Your task to perform on an android device: turn on the 24-hour format for clock Image 0: 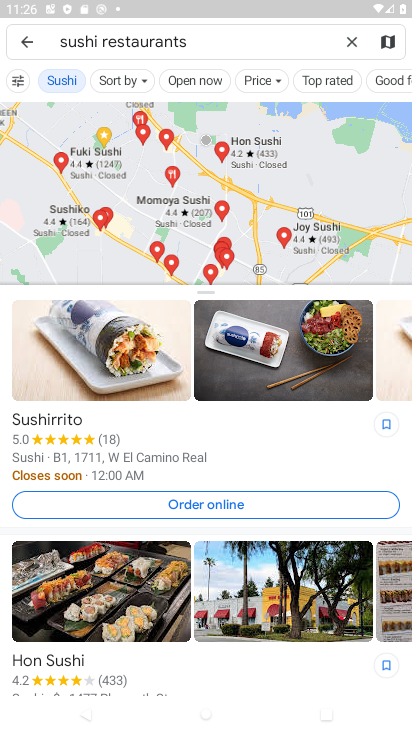
Step 0: press home button
Your task to perform on an android device: turn on the 24-hour format for clock Image 1: 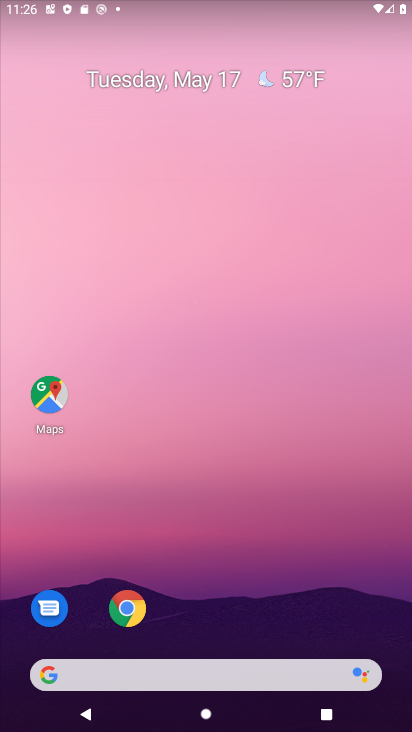
Step 1: drag from (187, 611) to (270, 96)
Your task to perform on an android device: turn on the 24-hour format for clock Image 2: 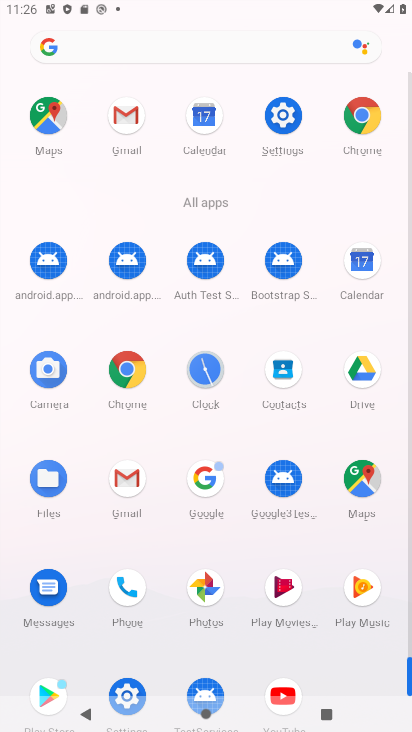
Step 2: click (293, 142)
Your task to perform on an android device: turn on the 24-hour format for clock Image 3: 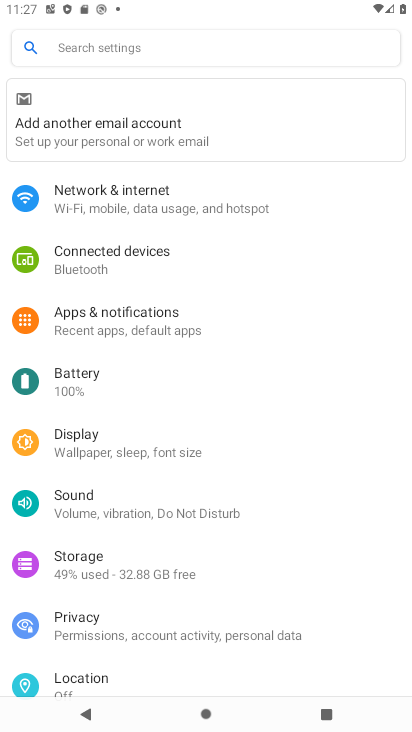
Step 3: drag from (109, 574) to (197, 179)
Your task to perform on an android device: turn on the 24-hour format for clock Image 4: 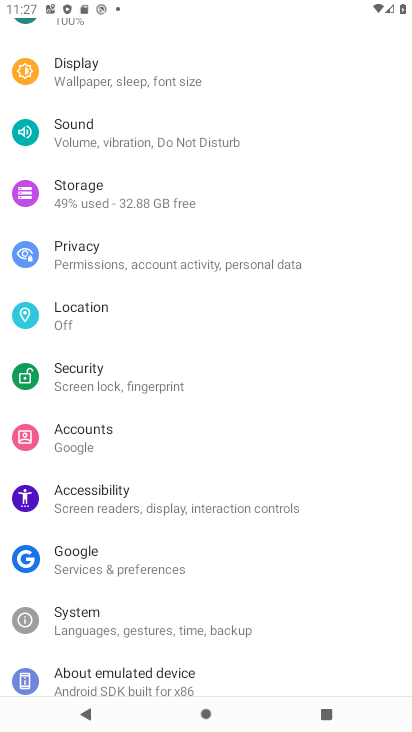
Step 4: drag from (110, 501) to (150, 243)
Your task to perform on an android device: turn on the 24-hour format for clock Image 5: 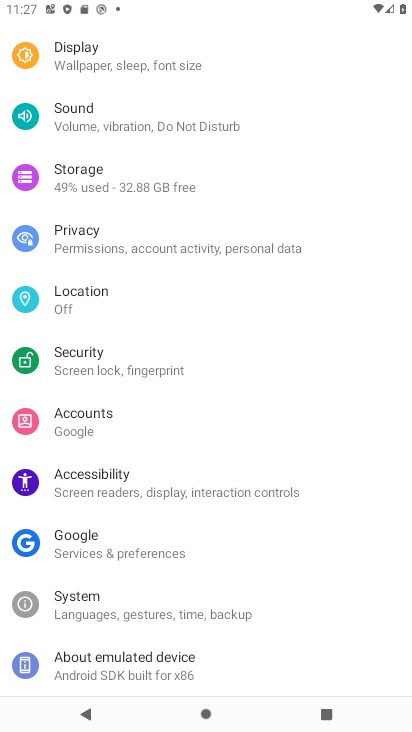
Step 5: click (79, 610)
Your task to perform on an android device: turn on the 24-hour format for clock Image 6: 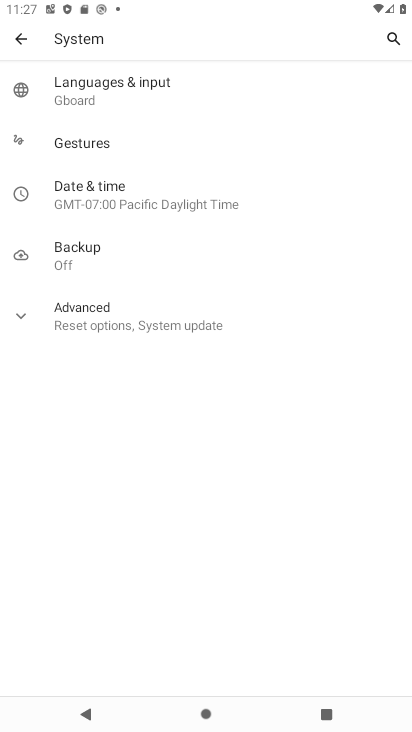
Step 6: click (104, 187)
Your task to perform on an android device: turn on the 24-hour format for clock Image 7: 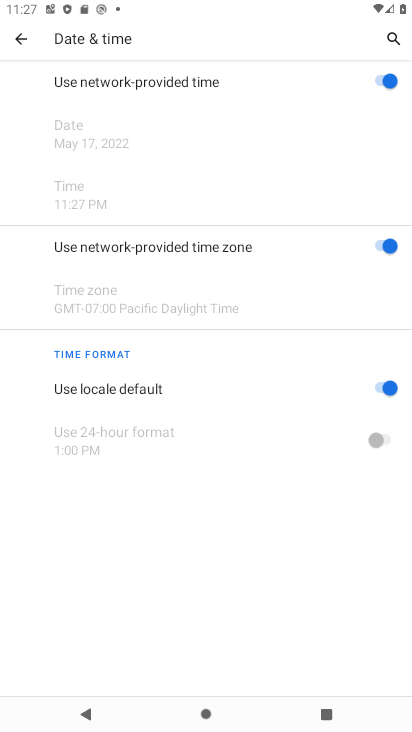
Step 7: click (374, 375)
Your task to perform on an android device: turn on the 24-hour format for clock Image 8: 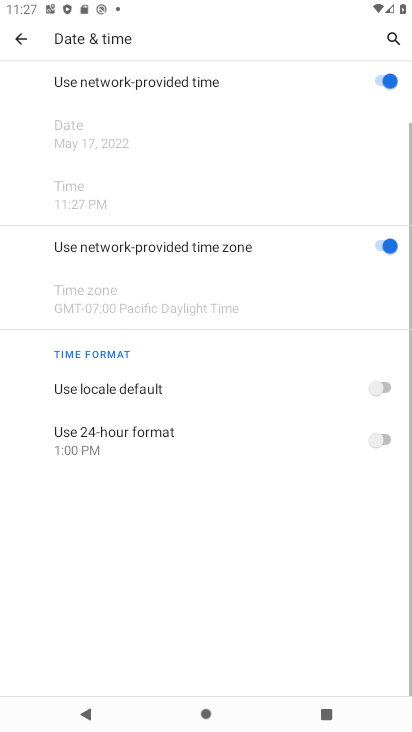
Step 8: click (388, 439)
Your task to perform on an android device: turn on the 24-hour format for clock Image 9: 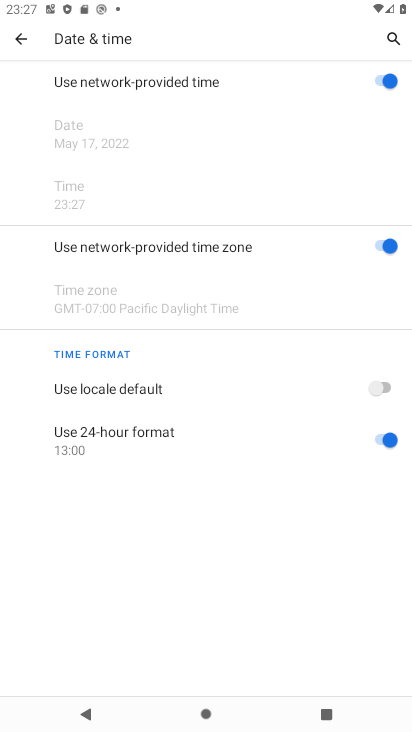
Step 9: task complete